Your task to perform on an android device: Clear the shopping cart on costco.com. Add "razer naga" to the cart on costco.com Image 0: 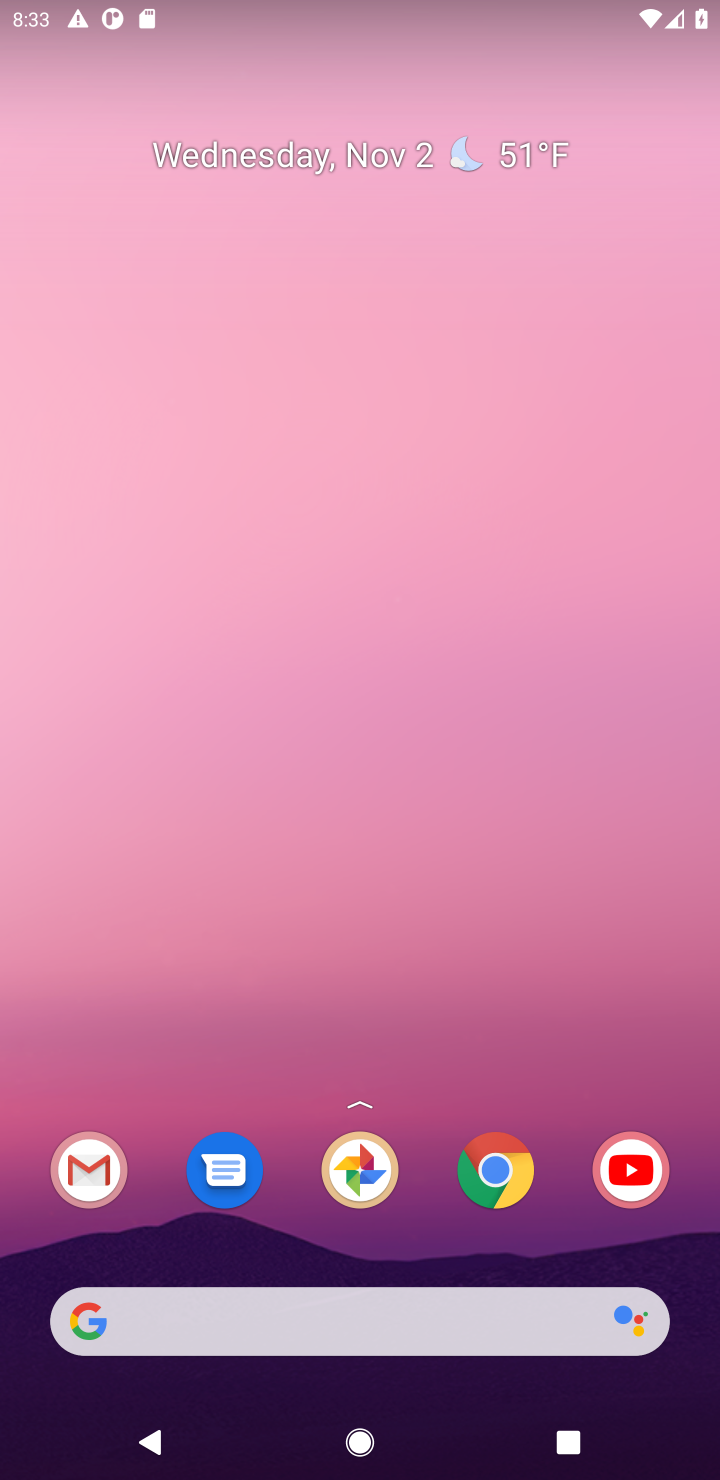
Step 0: click (497, 1177)
Your task to perform on an android device: Clear the shopping cart on costco.com. Add "razer naga" to the cart on costco.com Image 1: 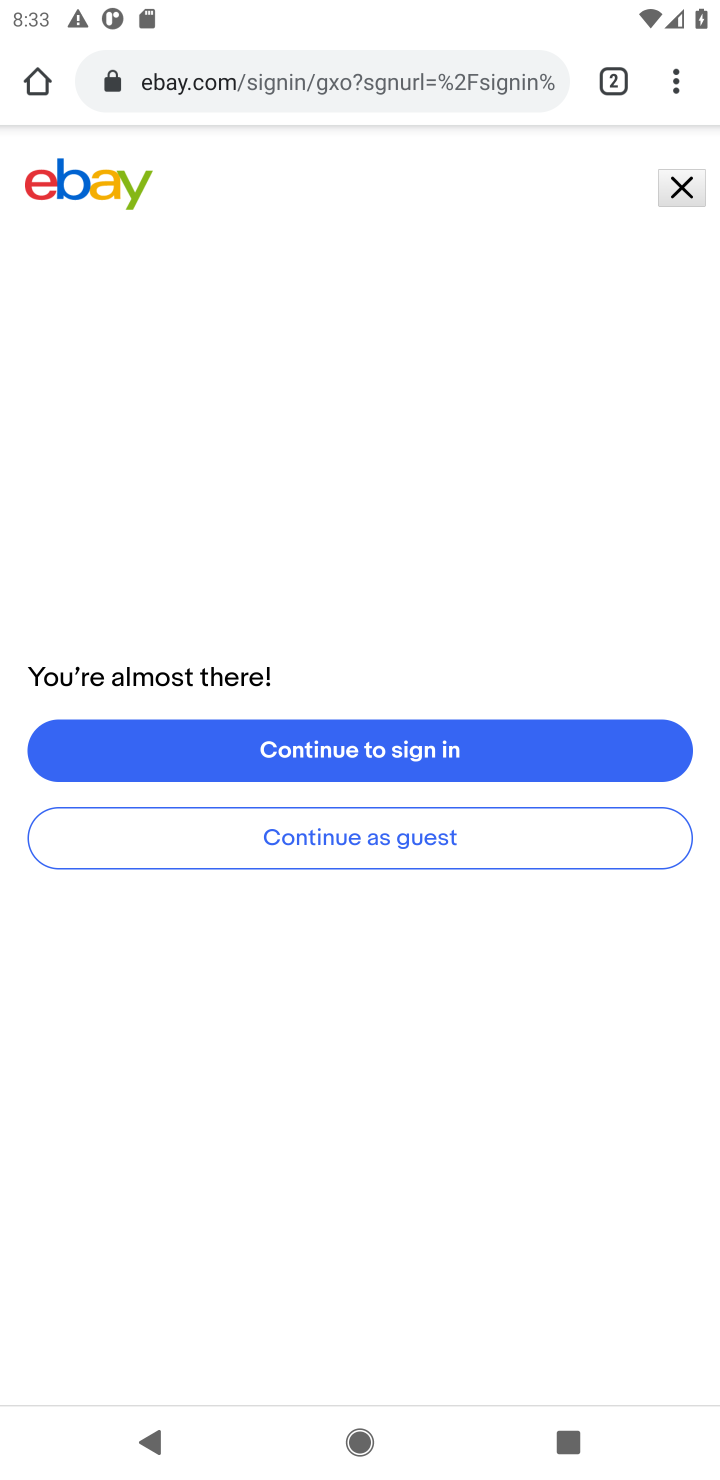
Step 1: click (449, 66)
Your task to perform on an android device: Clear the shopping cart on costco.com. Add "razer naga" to the cart on costco.com Image 2: 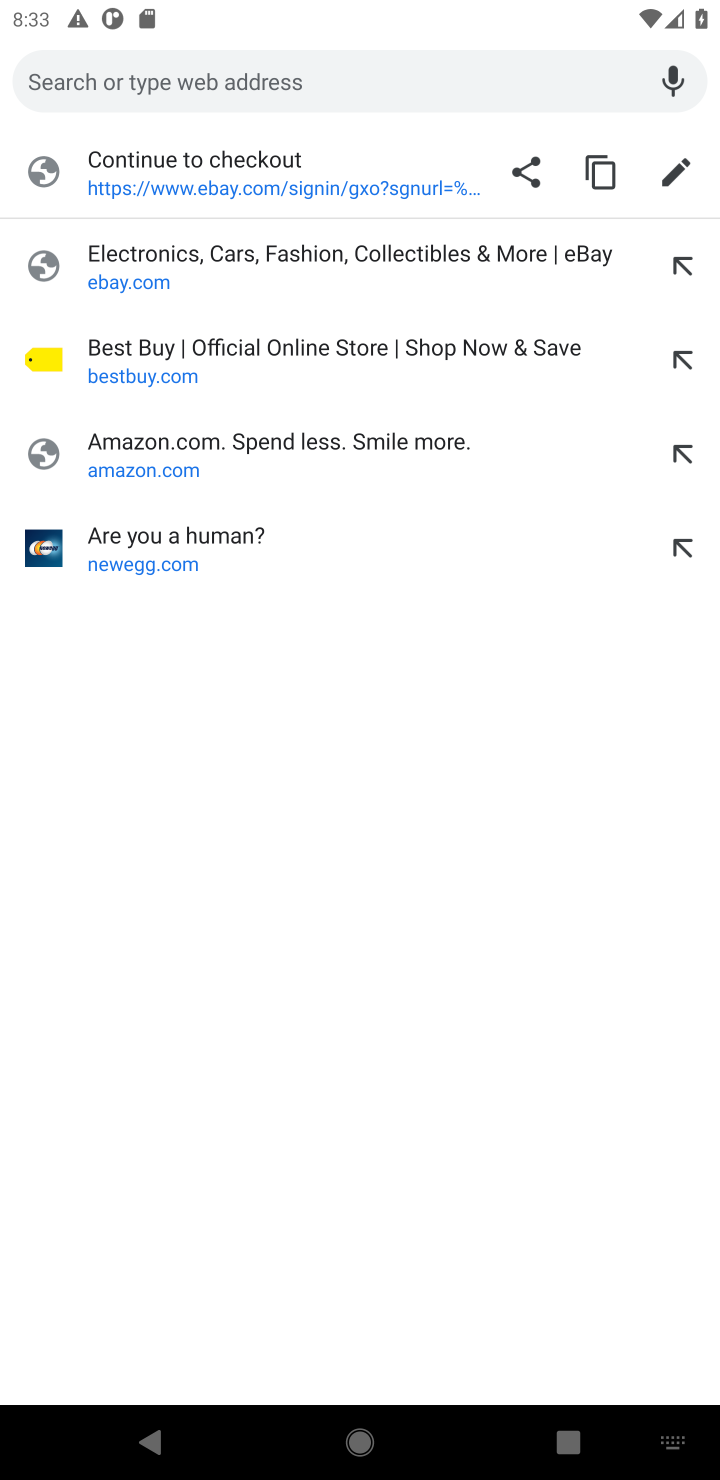
Step 2: type "costco.com"
Your task to perform on an android device: Clear the shopping cart on costco.com. Add "razer naga" to the cart on costco.com Image 3: 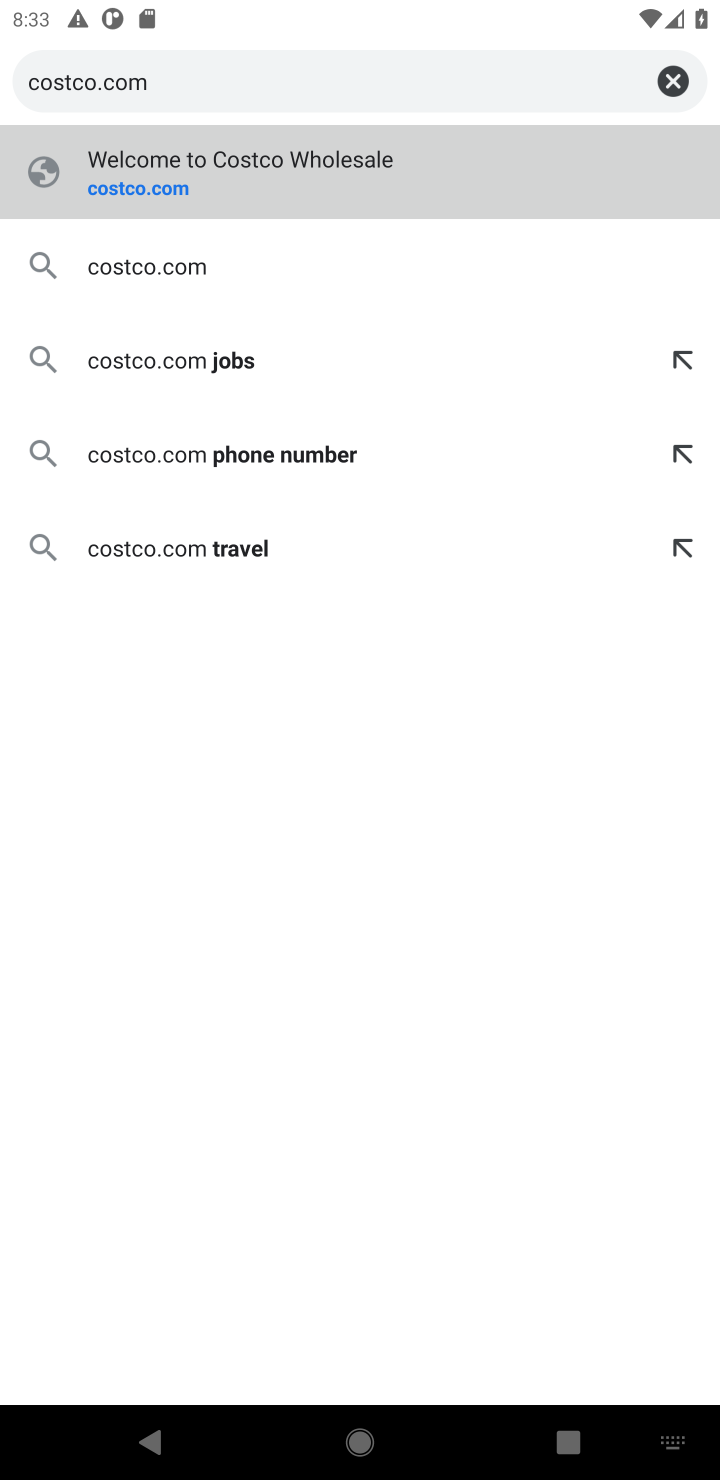
Step 3: press enter
Your task to perform on an android device: Clear the shopping cart on costco.com. Add "razer naga" to the cart on costco.com Image 4: 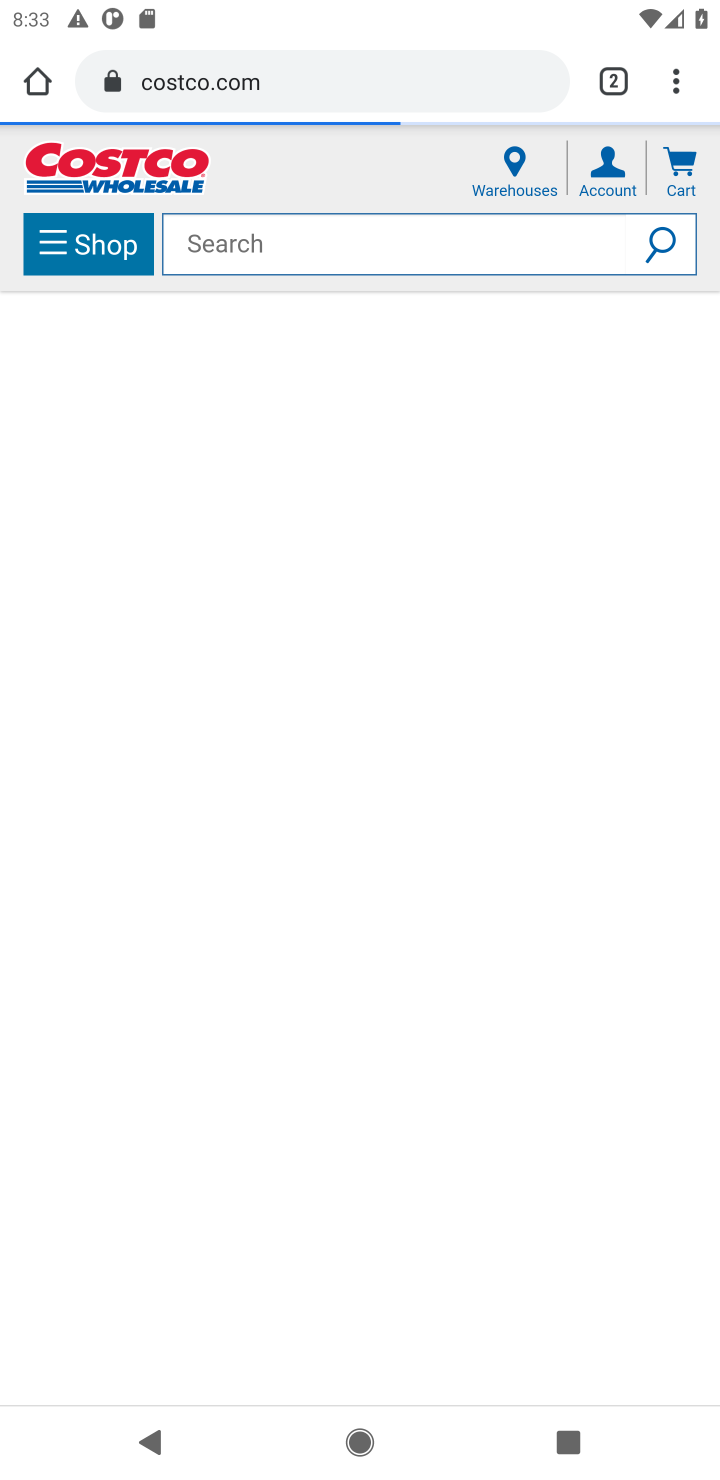
Step 4: click (681, 175)
Your task to perform on an android device: Clear the shopping cart on costco.com. Add "razer naga" to the cart on costco.com Image 5: 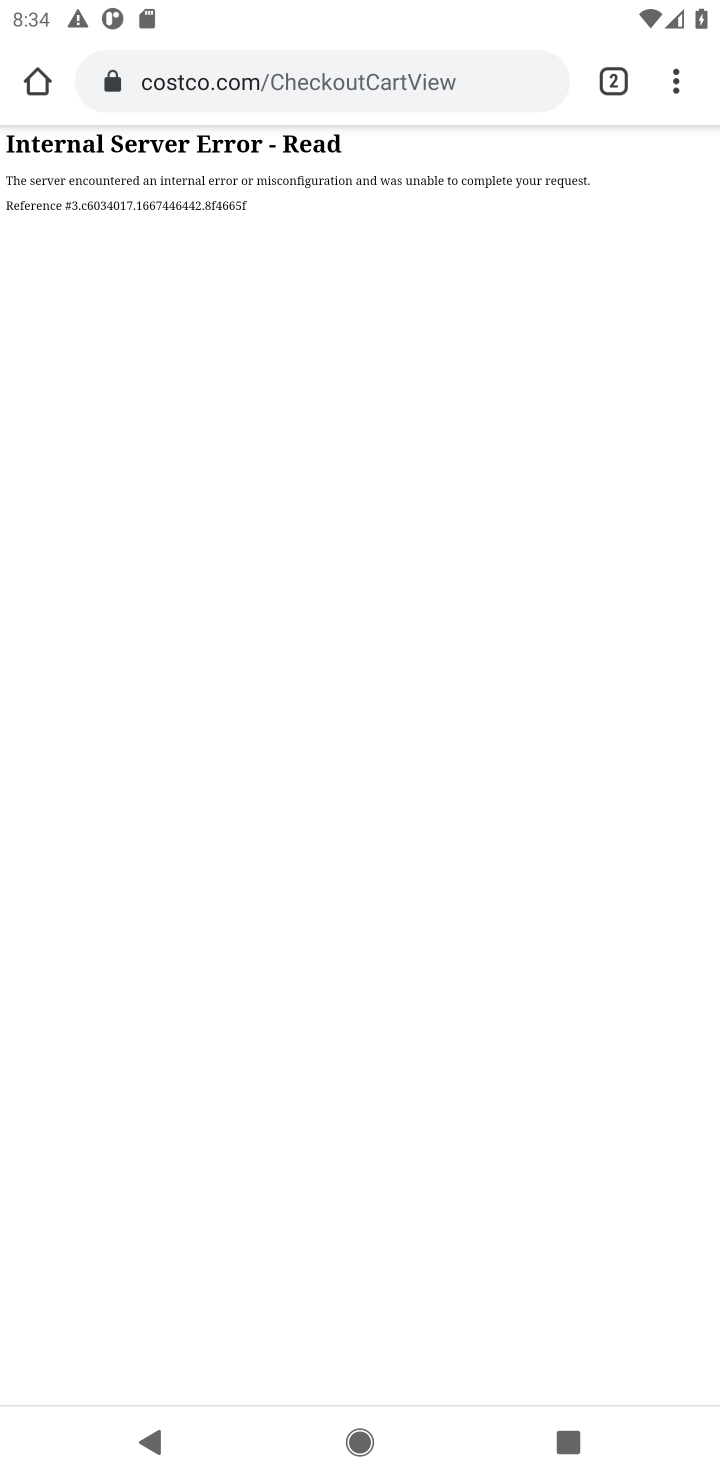
Step 5: task complete